Your task to perform on an android device: turn on wifi Image 0: 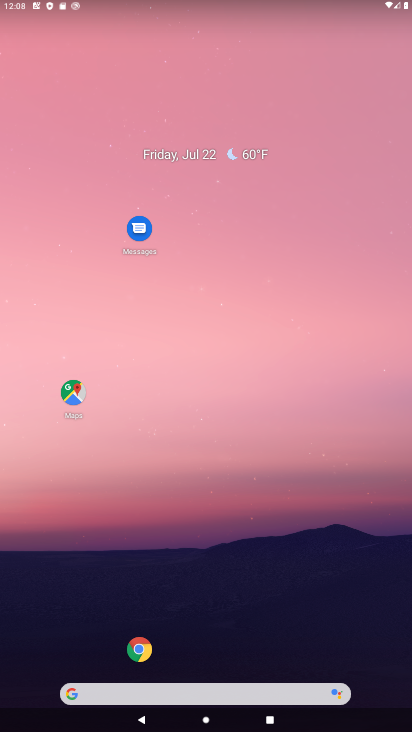
Step 0: drag from (62, 657) to (143, 268)
Your task to perform on an android device: turn on wifi Image 1: 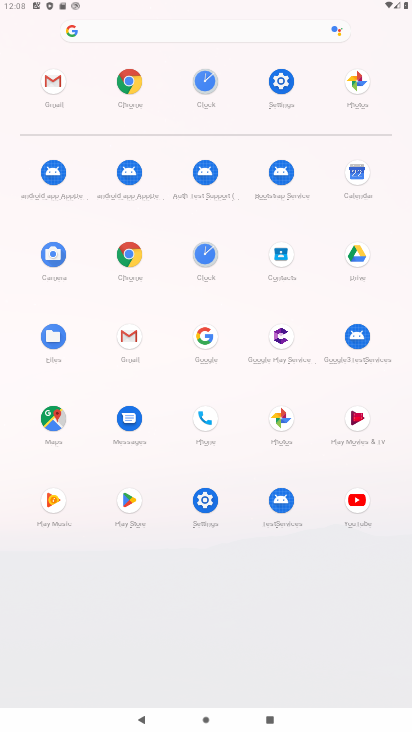
Step 1: drag from (150, 413) to (232, 3)
Your task to perform on an android device: turn on wifi Image 2: 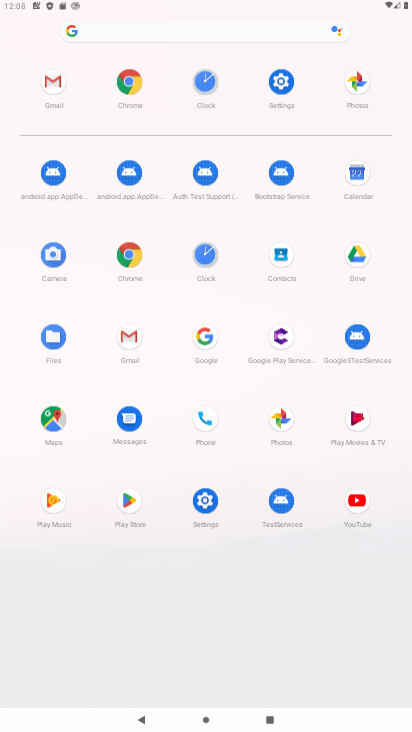
Step 2: click (203, 512)
Your task to perform on an android device: turn on wifi Image 3: 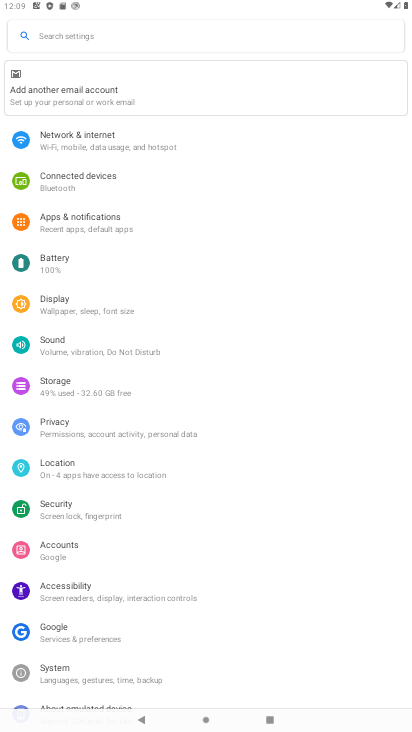
Step 3: click (81, 126)
Your task to perform on an android device: turn on wifi Image 4: 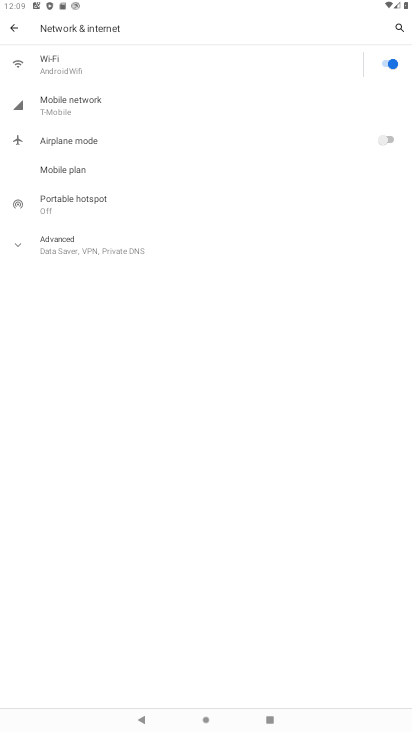
Step 4: task complete